Your task to perform on an android device: Open the web browser Image 0: 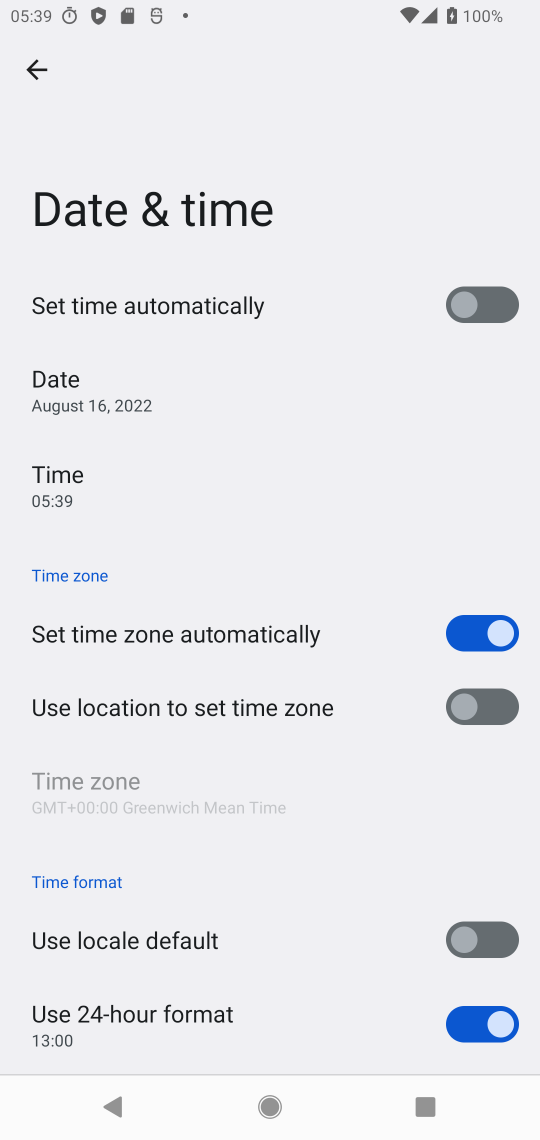
Step 0: press home button
Your task to perform on an android device: Open the web browser Image 1: 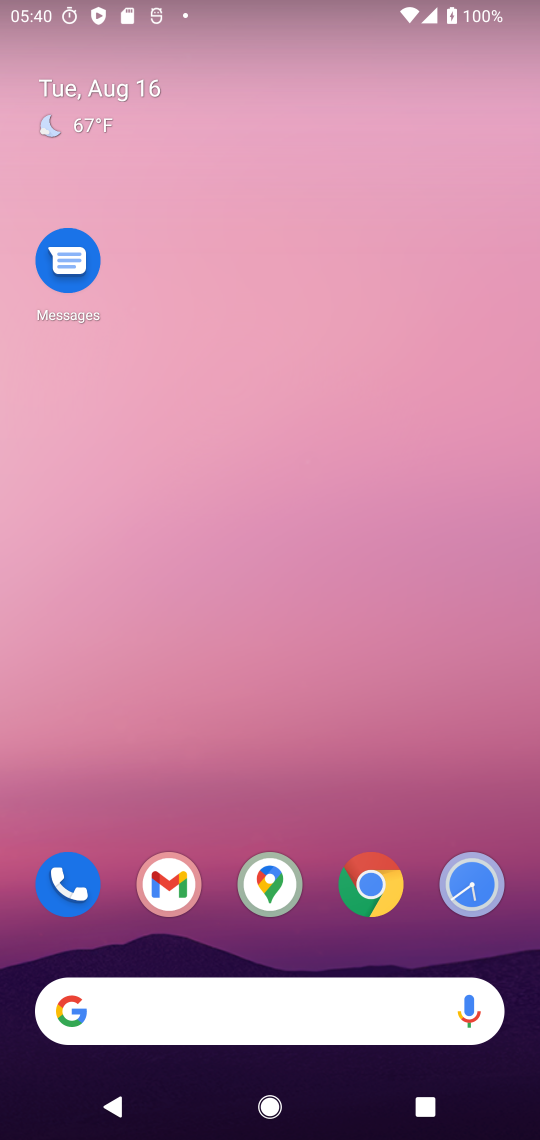
Step 1: task complete